Your task to perform on an android device: Search for sushi restaurants on Maps Image 0: 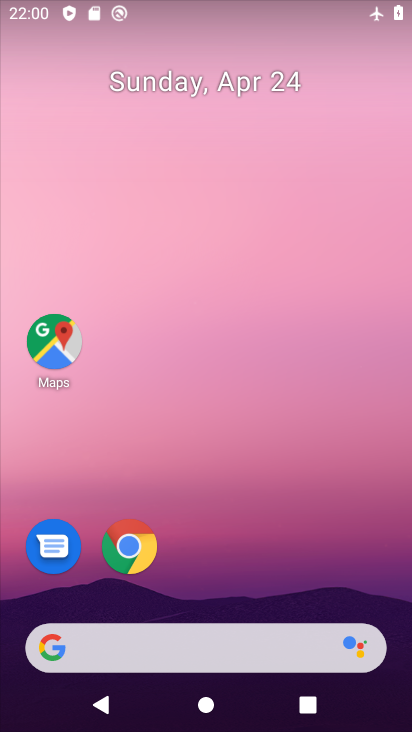
Step 0: drag from (263, 362) to (273, 242)
Your task to perform on an android device: Search for sushi restaurants on Maps Image 1: 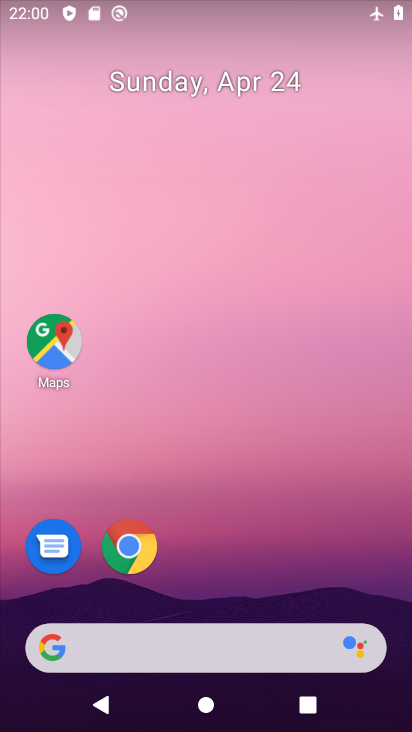
Step 1: drag from (248, 553) to (248, 214)
Your task to perform on an android device: Search for sushi restaurants on Maps Image 2: 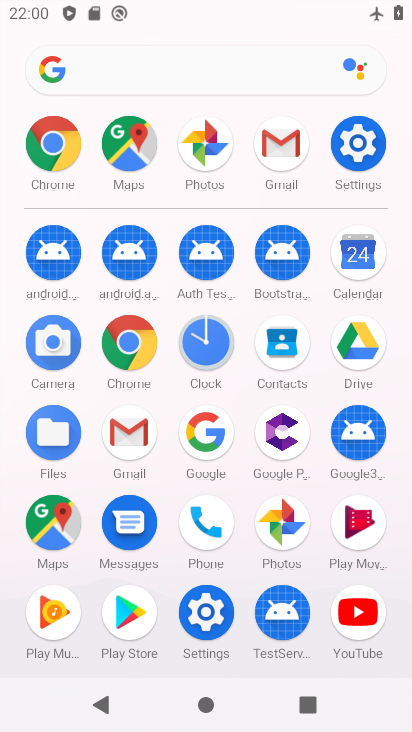
Step 2: click (53, 517)
Your task to perform on an android device: Search for sushi restaurants on Maps Image 3: 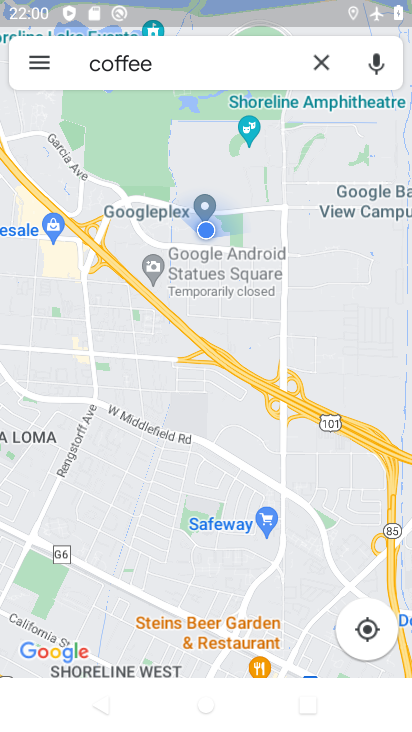
Step 3: click (312, 63)
Your task to perform on an android device: Search for sushi restaurants on Maps Image 4: 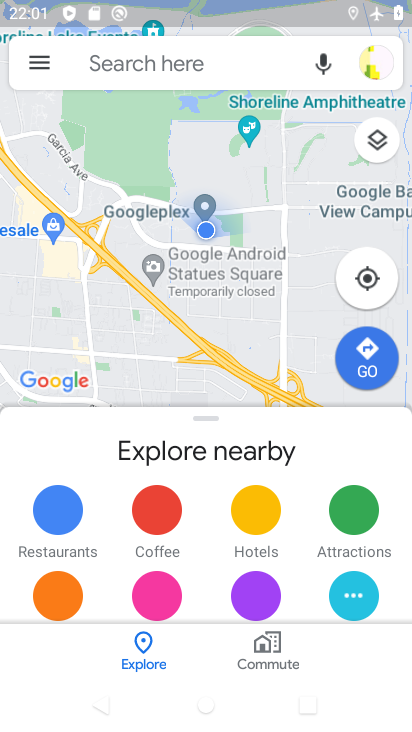
Step 4: click (169, 53)
Your task to perform on an android device: Search for sushi restaurants on Maps Image 5: 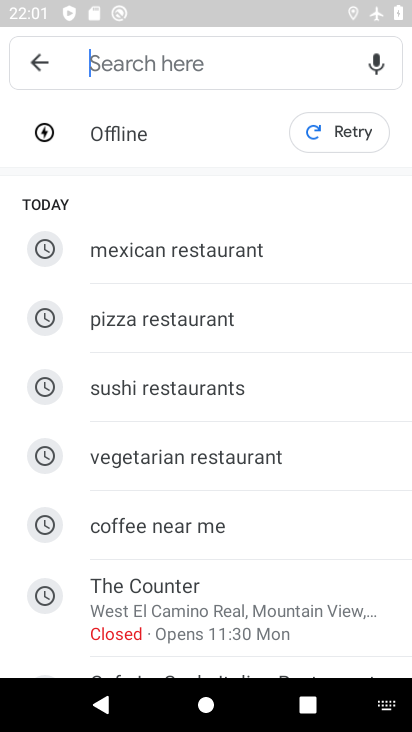
Step 5: type "sushi restaurants"
Your task to perform on an android device: Search for sushi restaurants on Maps Image 6: 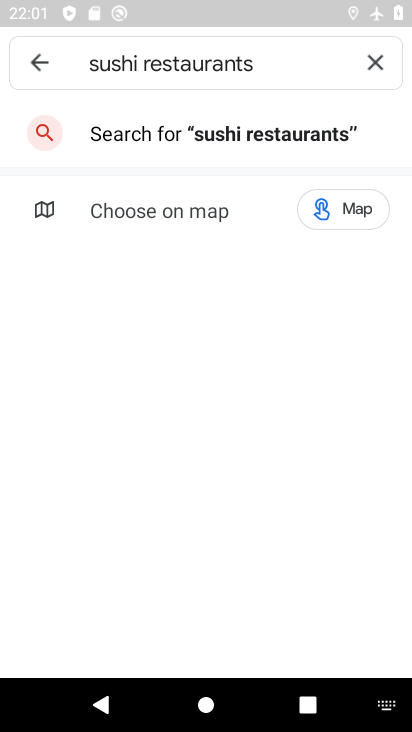
Step 6: click (302, 125)
Your task to perform on an android device: Search for sushi restaurants on Maps Image 7: 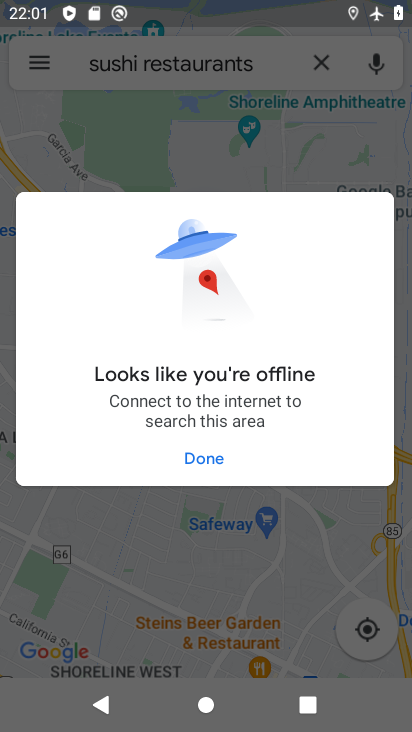
Step 7: click (196, 454)
Your task to perform on an android device: Search for sushi restaurants on Maps Image 8: 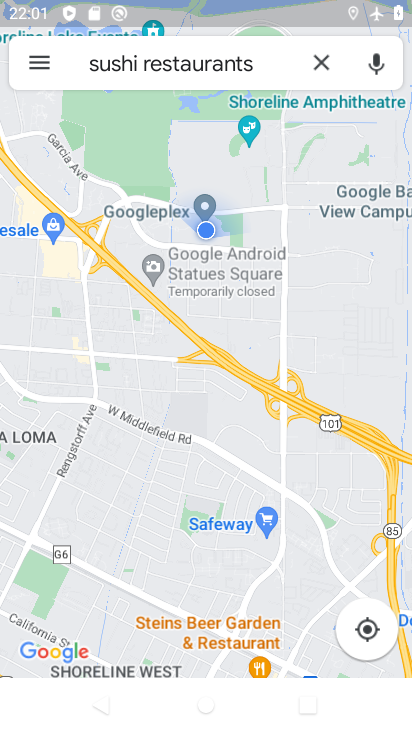
Step 8: task complete